Your task to perform on an android device: set an alarm Image 0: 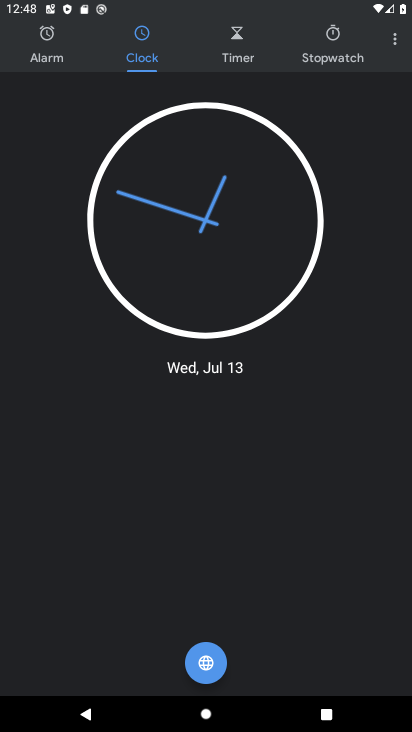
Step 0: click (47, 41)
Your task to perform on an android device: set an alarm Image 1: 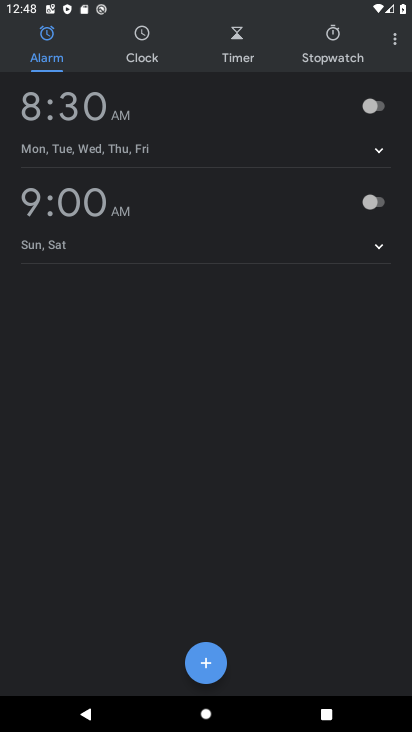
Step 1: click (372, 99)
Your task to perform on an android device: set an alarm Image 2: 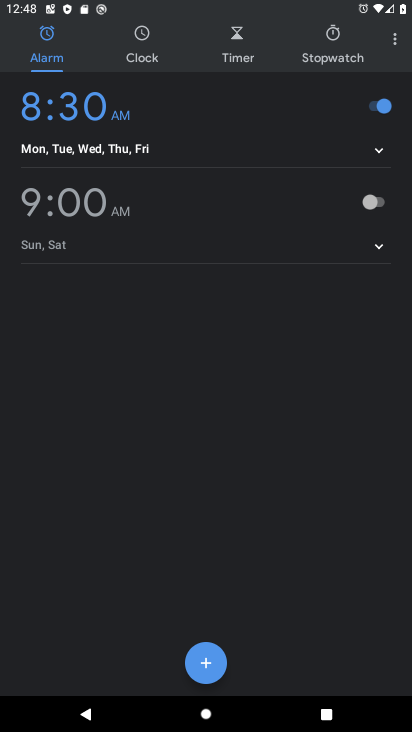
Step 2: task complete